Your task to perform on an android device: add a contact Image 0: 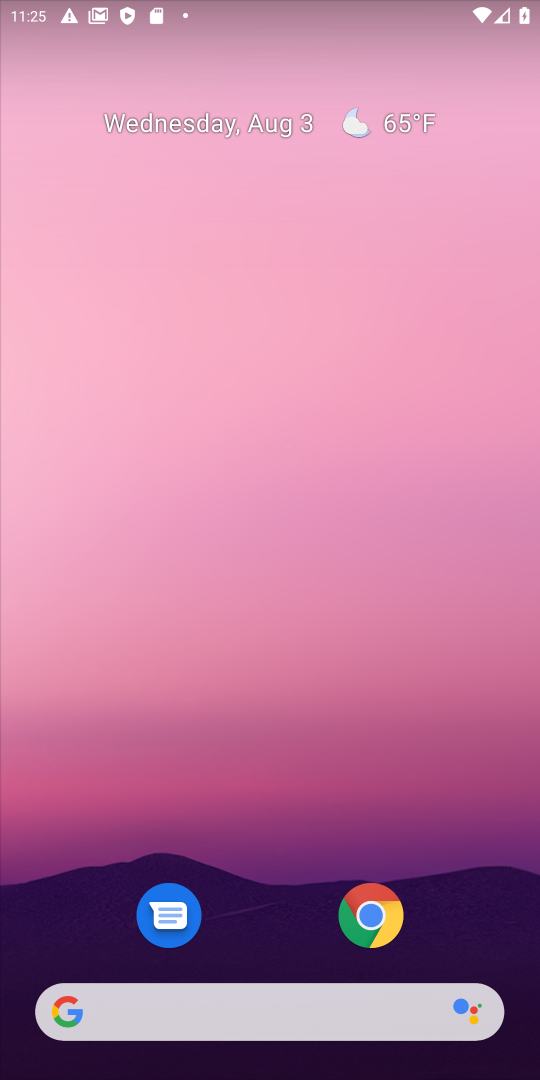
Step 0: drag from (243, 777) to (338, 68)
Your task to perform on an android device: add a contact Image 1: 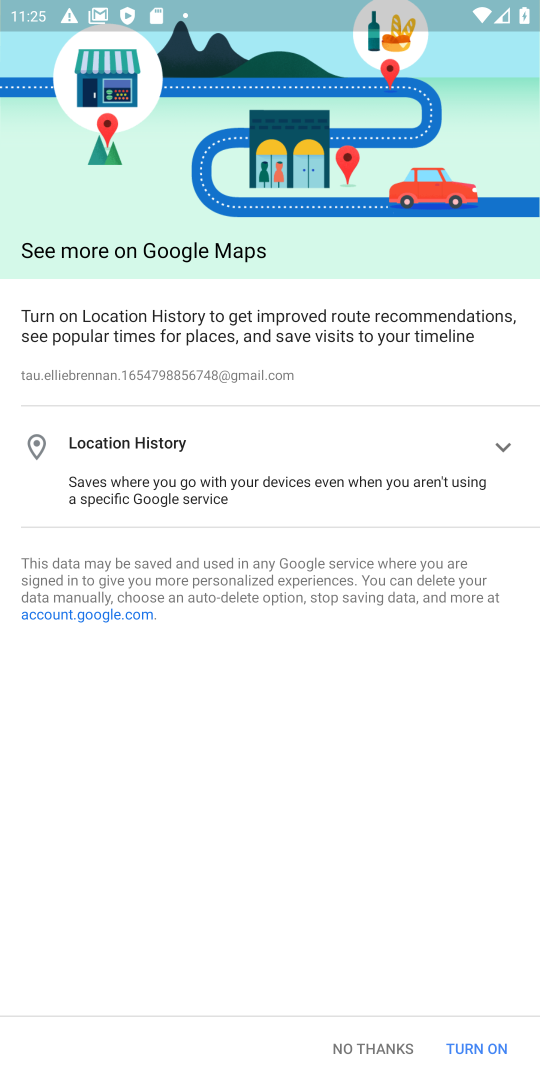
Step 1: press back button
Your task to perform on an android device: add a contact Image 2: 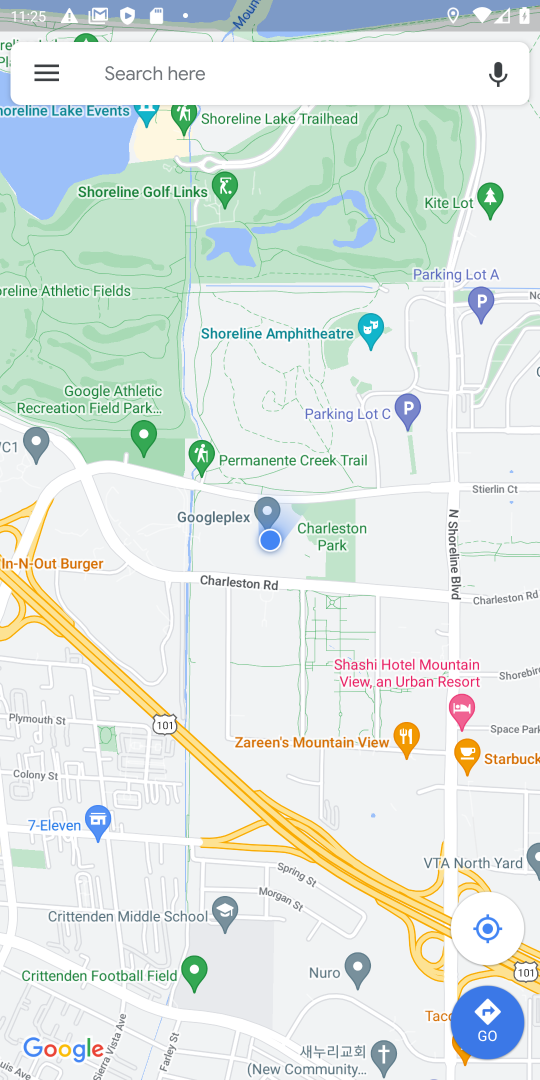
Step 2: press home button
Your task to perform on an android device: add a contact Image 3: 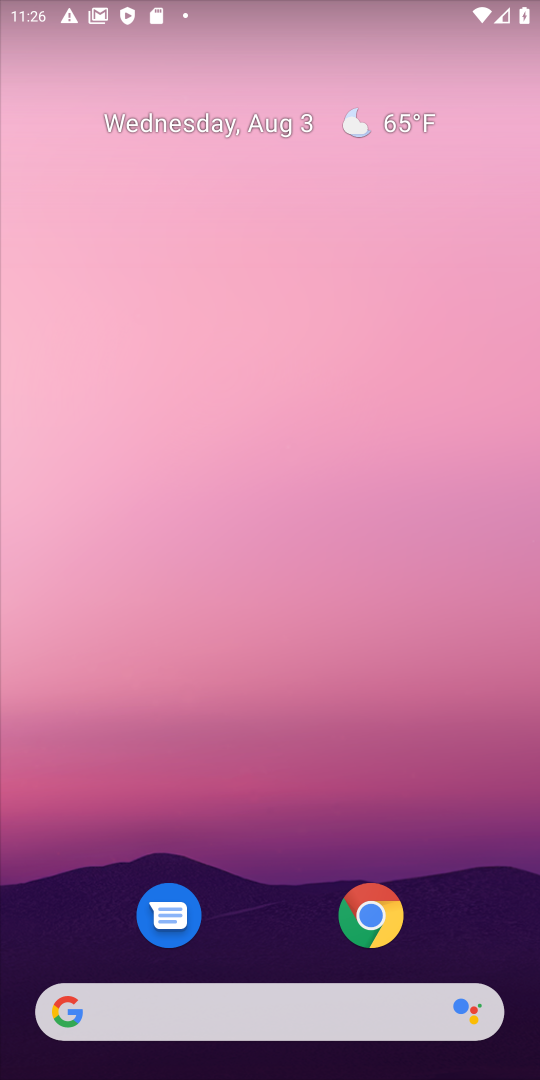
Step 3: drag from (236, 930) to (236, 211)
Your task to perform on an android device: add a contact Image 4: 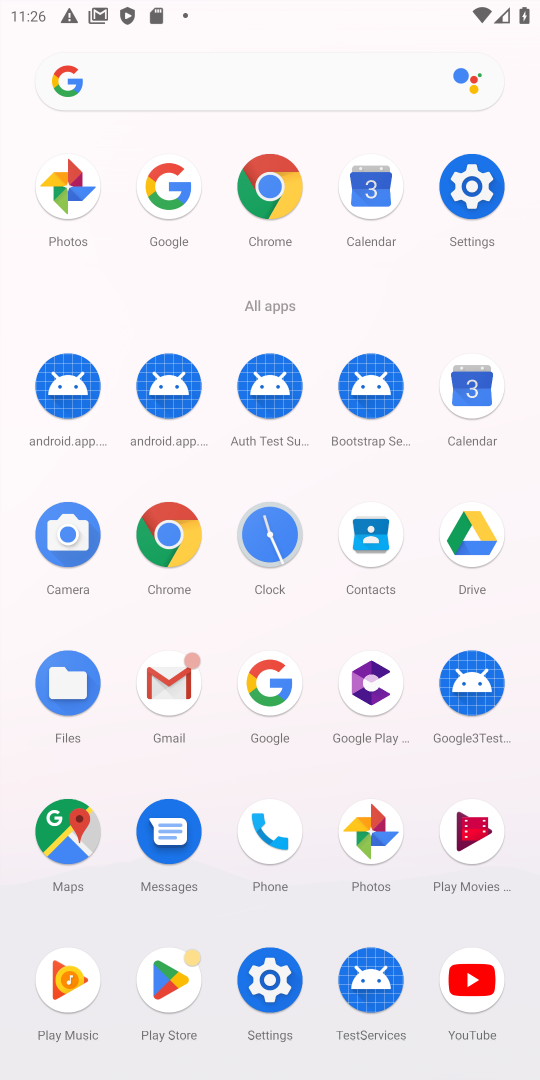
Step 4: click (372, 581)
Your task to perform on an android device: add a contact Image 5: 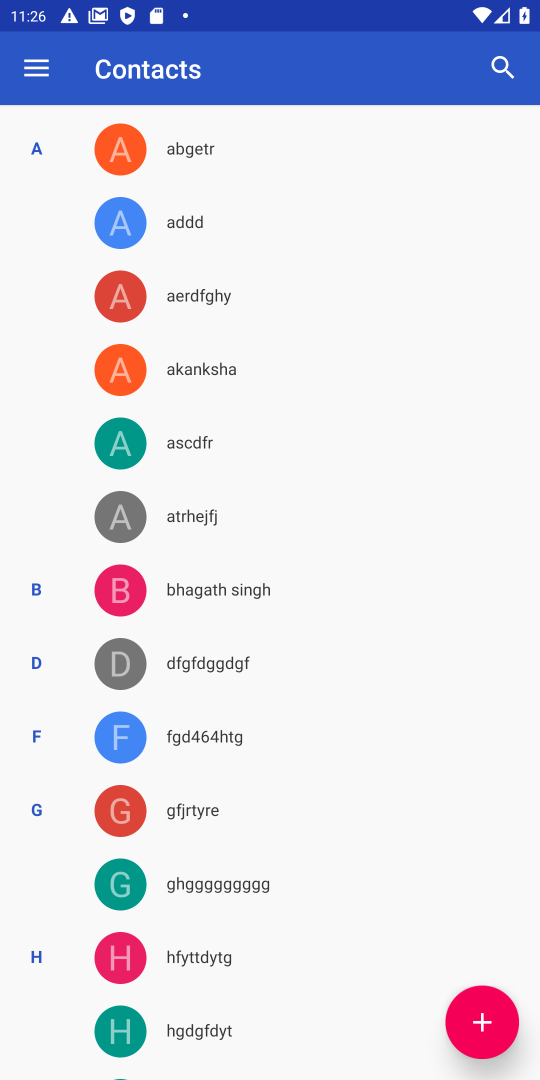
Step 5: click (483, 1001)
Your task to perform on an android device: add a contact Image 6: 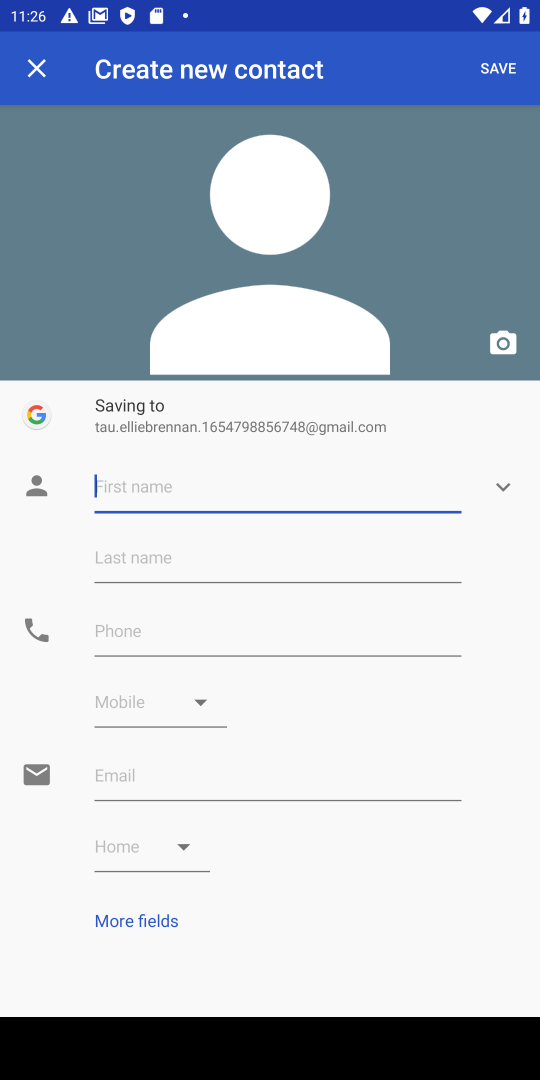
Step 6: type "Navya"
Your task to perform on an android device: add a contact Image 7: 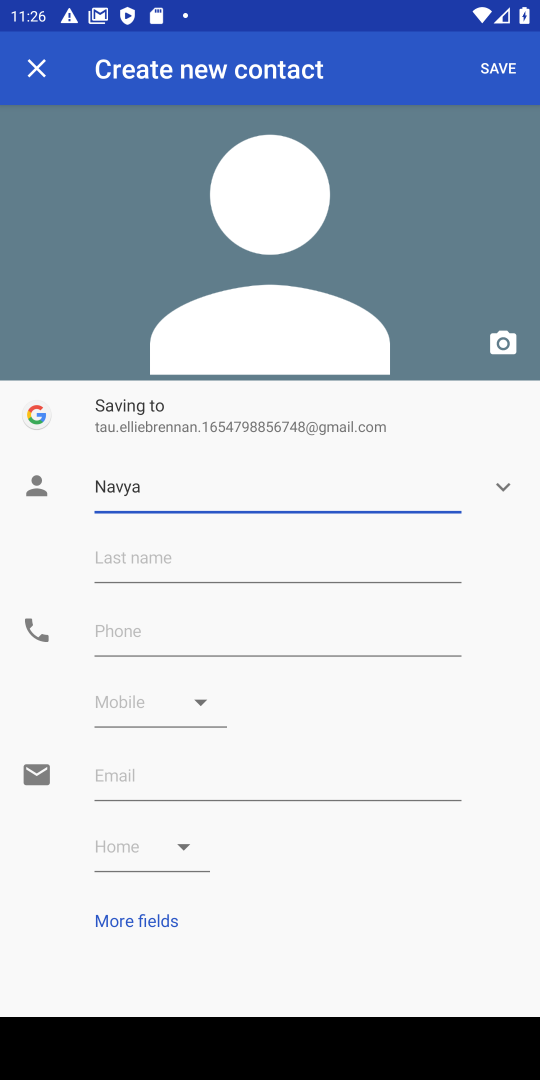
Step 7: click (142, 539)
Your task to perform on an android device: add a contact Image 8: 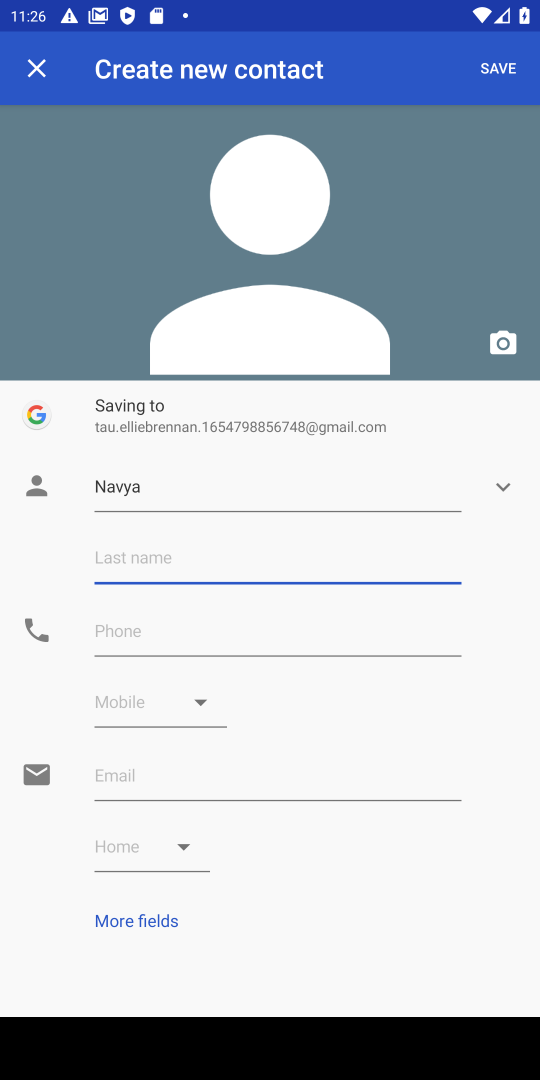
Step 8: type "Thakur"
Your task to perform on an android device: add a contact Image 9: 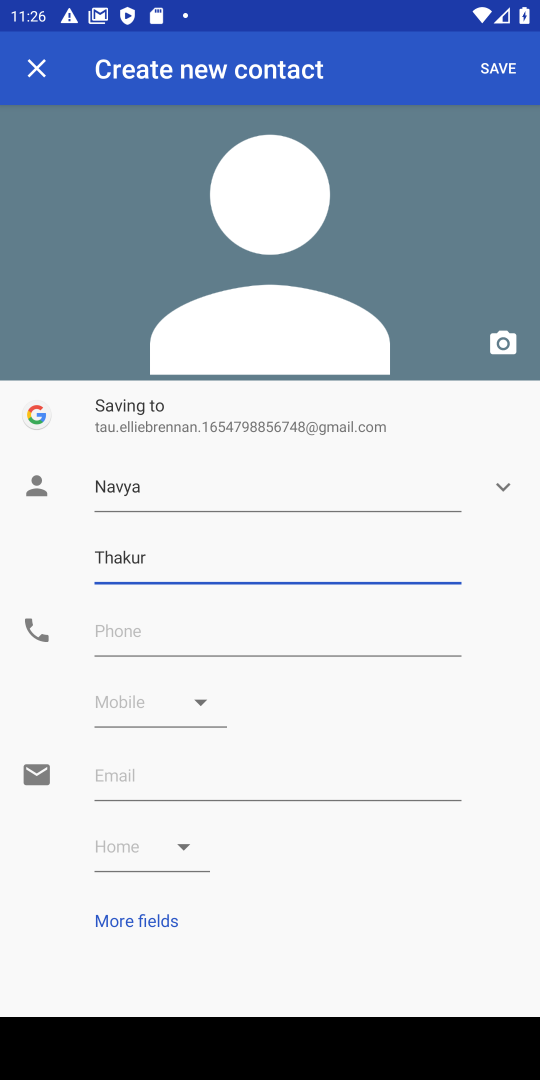
Step 9: click (256, 632)
Your task to perform on an android device: add a contact Image 10: 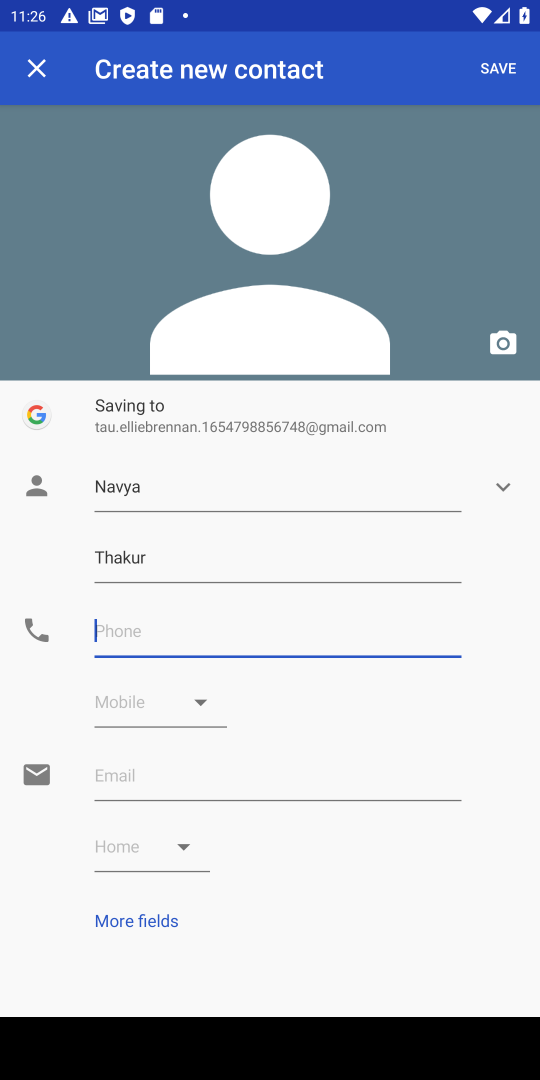
Step 10: type "6780987656"
Your task to perform on an android device: add a contact Image 11: 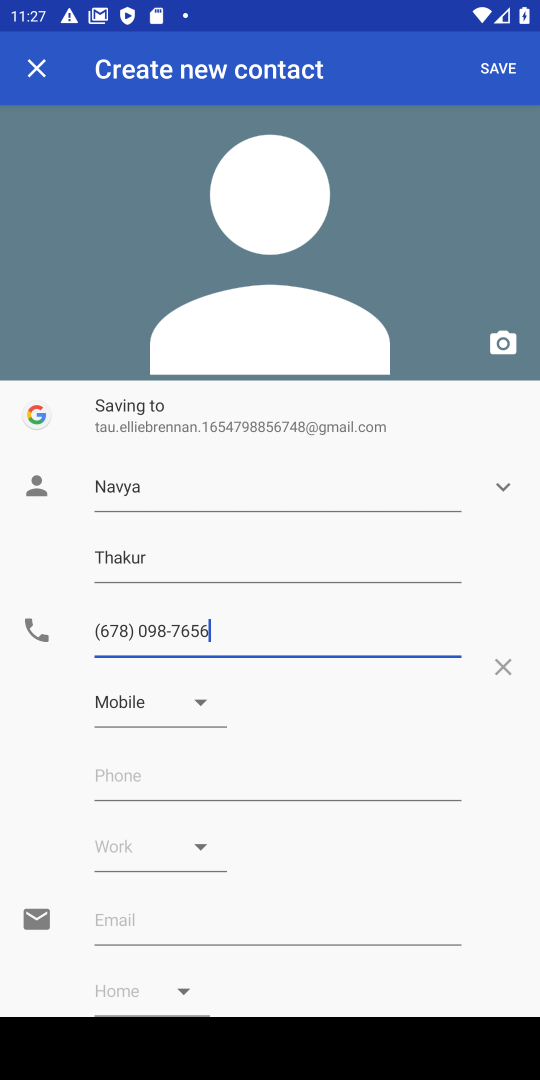
Step 11: click (502, 70)
Your task to perform on an android device: add a contact Image 12: 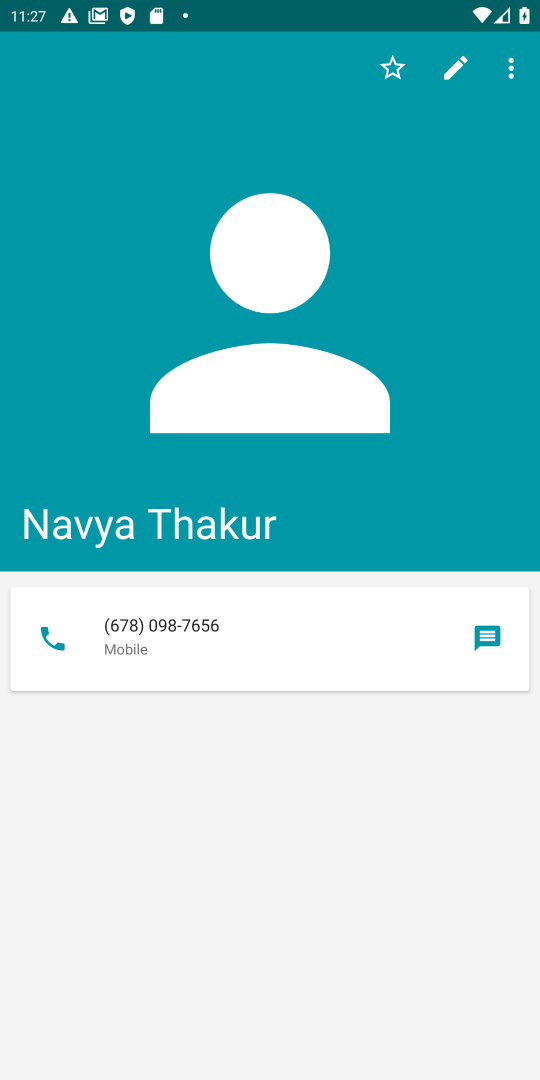
Step 12: task complete